Your task to perform on an android device: toggle airplane mode Image 0: 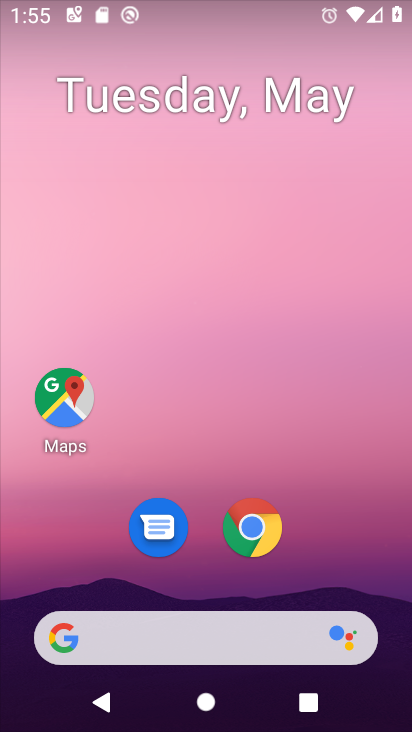
Step 0: drag from (256, 712) to (289, 257)
Your task to perform on an android device: toggle airplane mode Image 1: 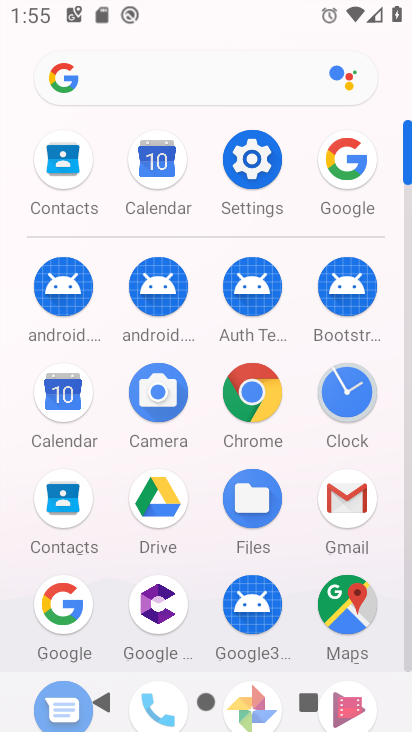
Step 1: click (266, 180)
Your task to perform on an android device: toggle airplane mode Image 2: 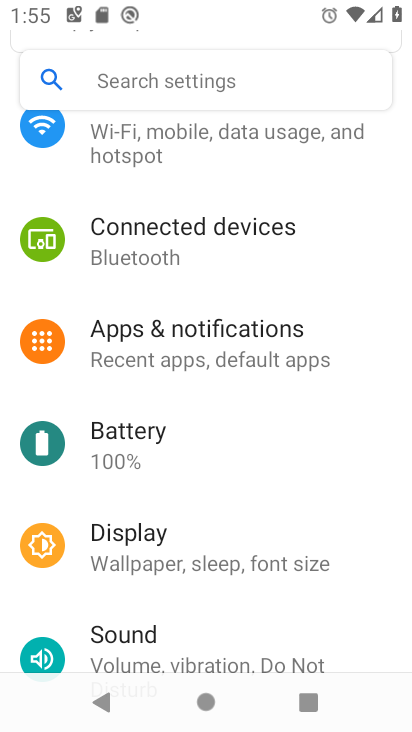
Step 2: click (300, 144)
Your task to perform on an android device: toggle airplane mode Image 3: 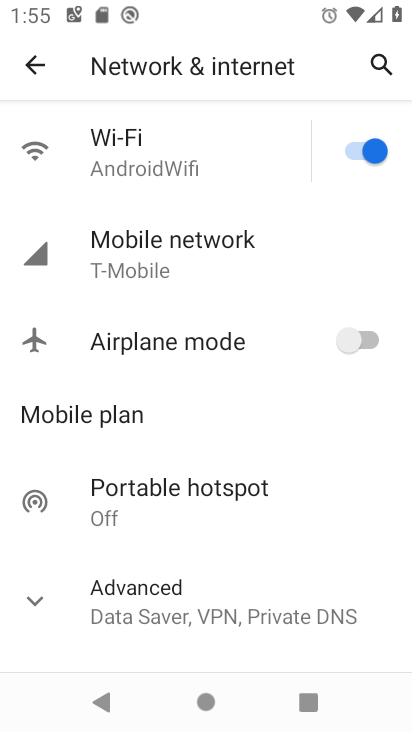
Step 3: click (371, 331)
Your task to perform on an android device: toggle airplane mode Image 4: 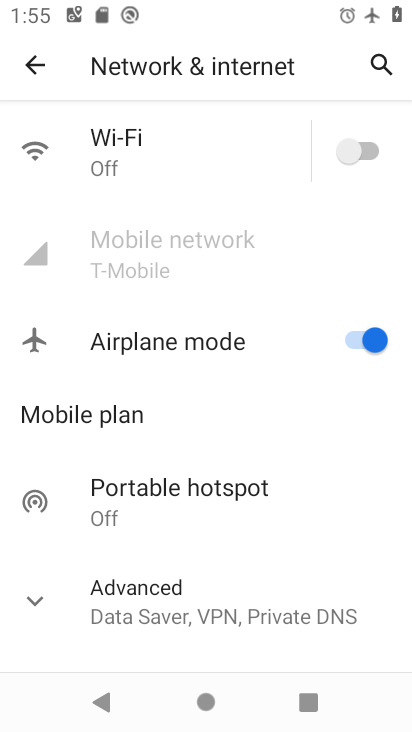
Step 4: task complete